Your task to perform on an android device: turn on location history Image 0: 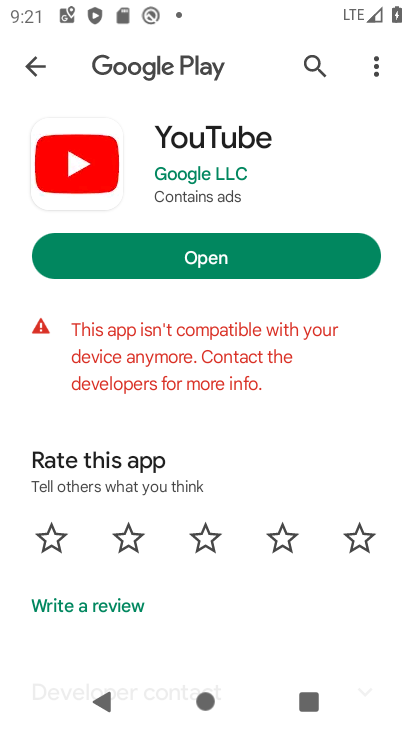
Step 0: press home button
Your task to perform on an android device: turn on location history Image 1: 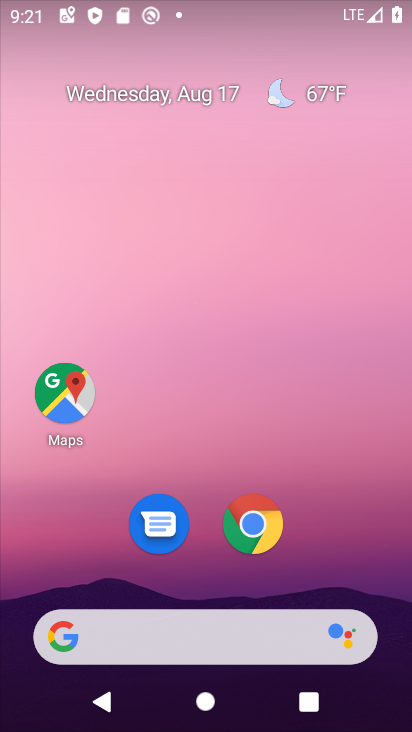
Step 1: drag from (319, 517) to (343, 2)
Your task to perform on an android device: turn on location history Image 2: 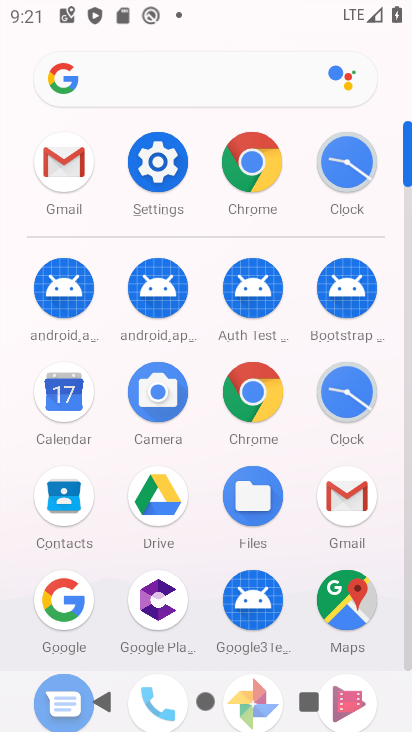
Step 2: click (163, 163)
Your task to perform on an android device: turn on location history Image 3: 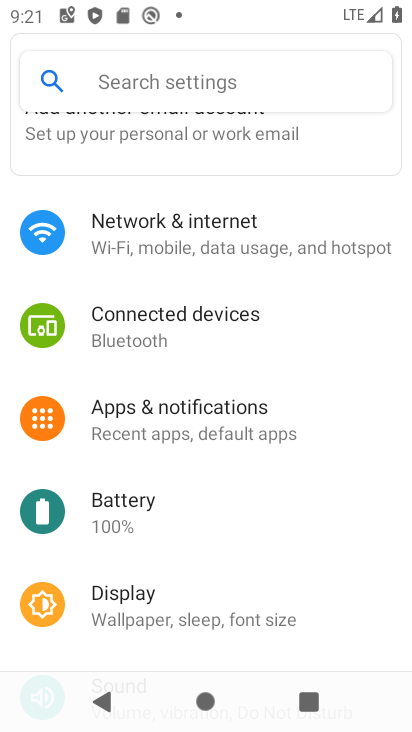
Step 3: drag from (227, 525) to (260, 1)
Your task to perform on an android device: turn on location history Image 4: 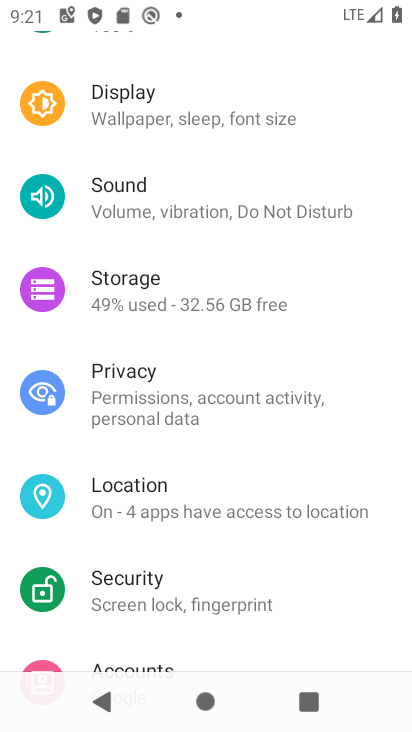
Step 4: drag from (231, 538) to (262, 47)
Your task to perform on an android device: turn on location history Image 5: 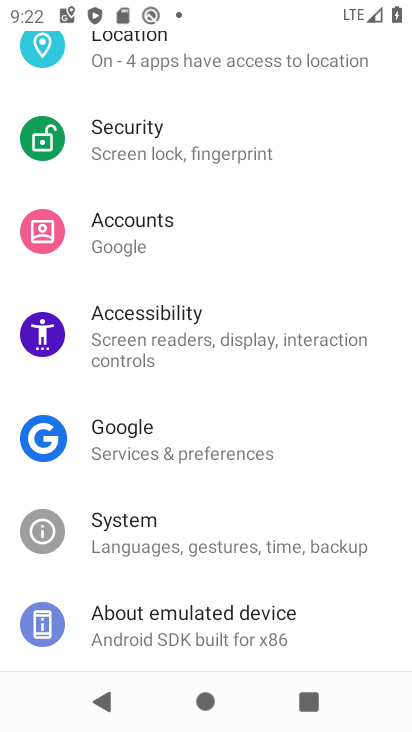
Step 5: drag from (225, 190) to (256, 475)
Your task to perform on an android device: turn on location history Image 6: 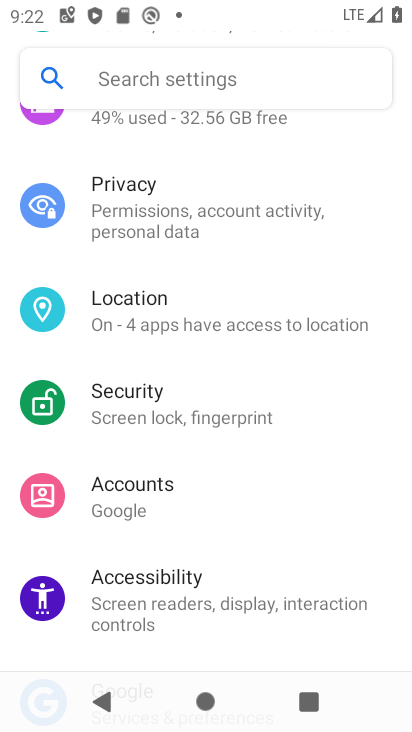
Step 6: click (246, 302)
Your task to perform on an android device: turn on location history Image 7: 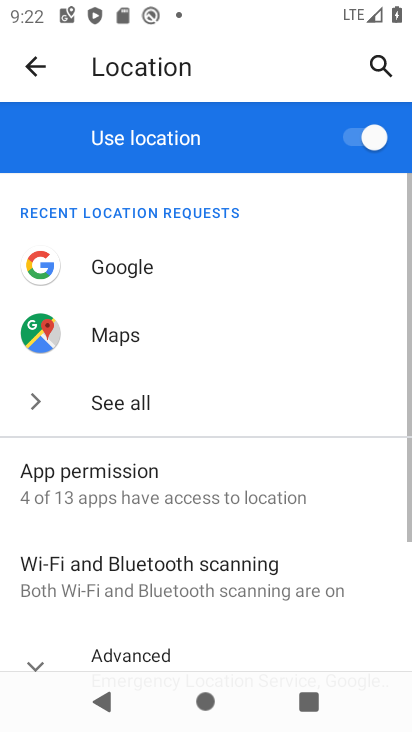
Step 7: drag from (204, 464) to (242, 87)
Your task to perform on an android device: turn on location history Image 8: 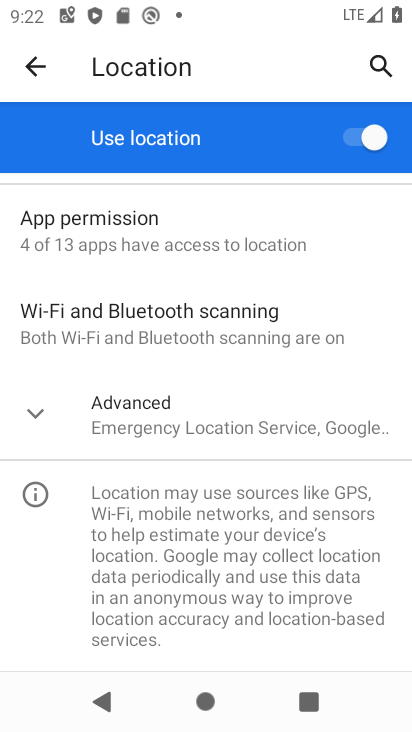
Step 8: click (41, 411)
Your task to perform on an android device: turn on location history Image 9: 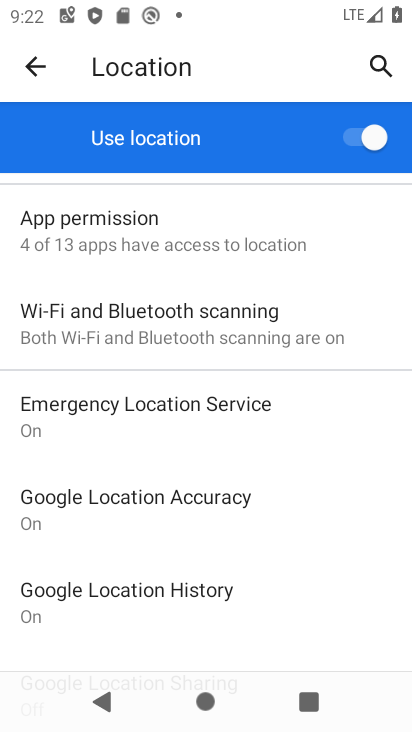
Step 9: click (230, 588)
Your task to perform on an android device: turn on location history Image 10: 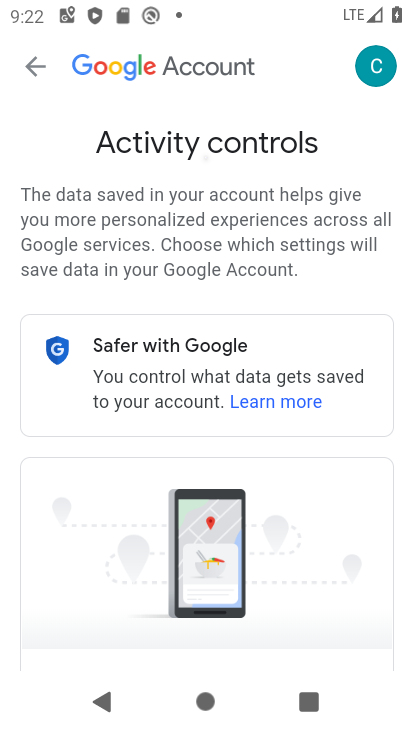
Step 10: task complete